Your task to perform on an android device: toggle wifi Image 0: 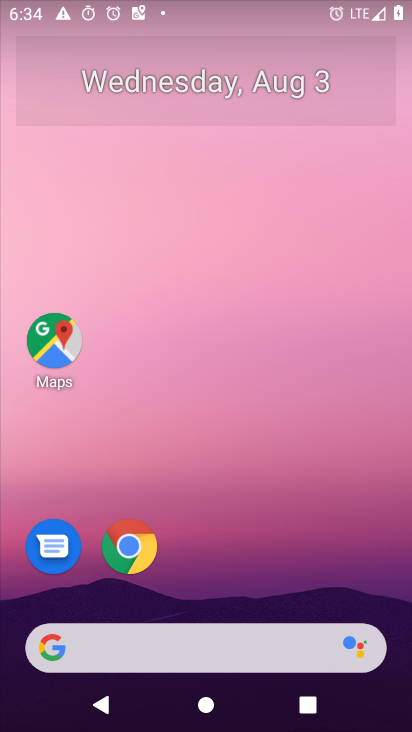
Step 0: press home button
Your task to perform on an android device: toggle wifi Image 1: 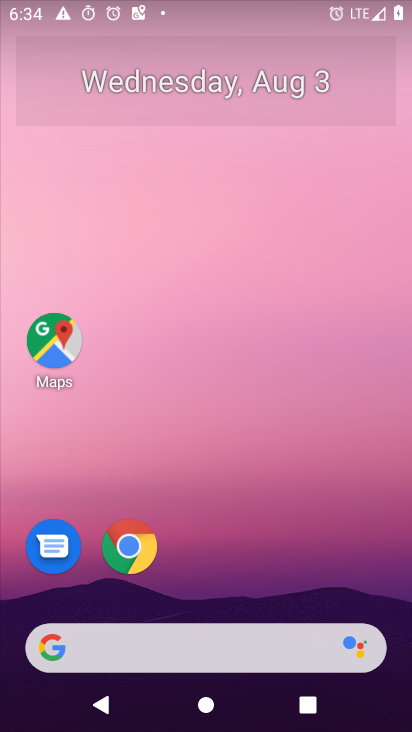
Step 1: drag from (207, 154) to (181, 684)
Your task to perform on an android device: toggle wifi Image 2: 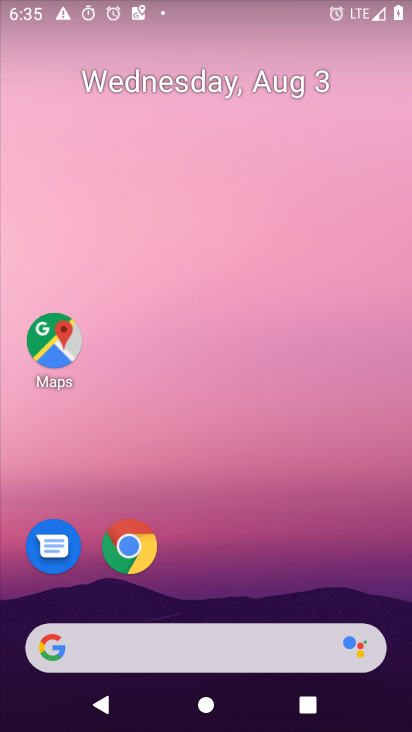
Step 2: drag from (246, 121) to (351, 701)
Your task to perform on an android device: toggle wifi Image 3: 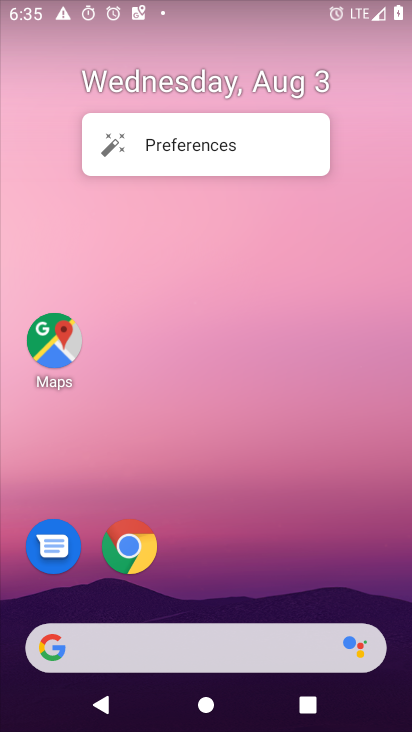
Step 3: drag from (209, 1) to (254, 477)
Your task to perform on an android device: toggle wifi Image 4: 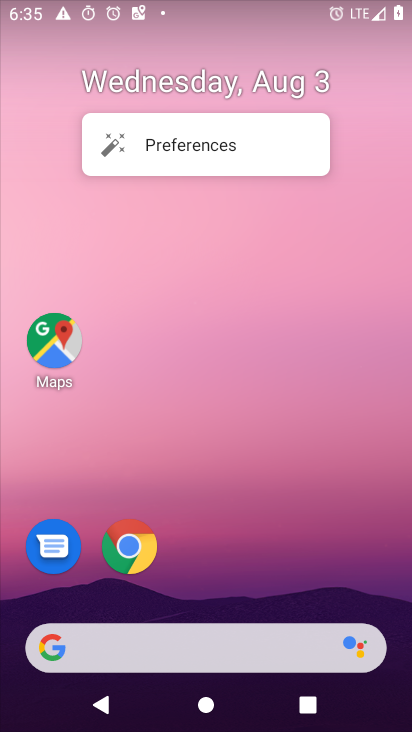
Step 4: drag from (204, 0) to (210, 402)
Your task to perform on an android device: toggle wifi Image 5: 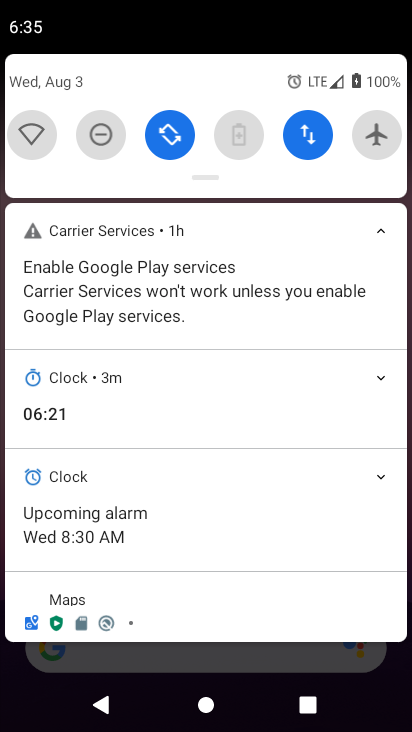
Step 5: click (31, 136)
Your task to perform on an android device: toggle wifi Image 6: 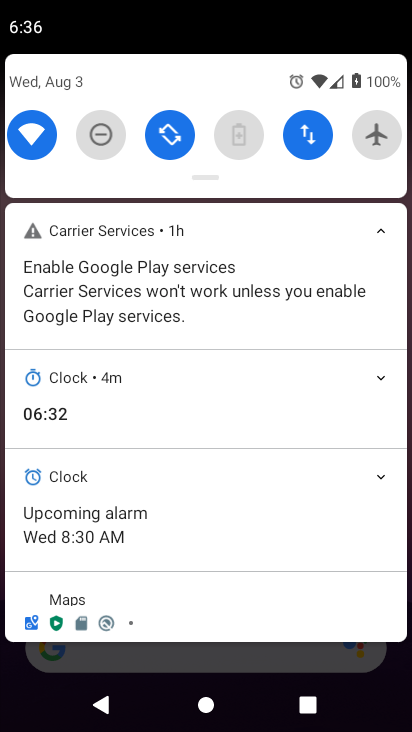
Step 6: task complete